Your task to perform on an android device: Go to location settings Image 0: 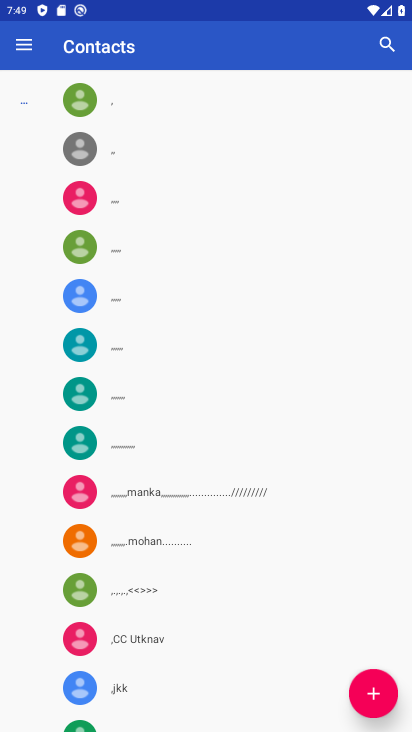
Step 0: drag from (227, 648) to (245, 491)
Your task to perform on an android device: Go to location settings Image 1: 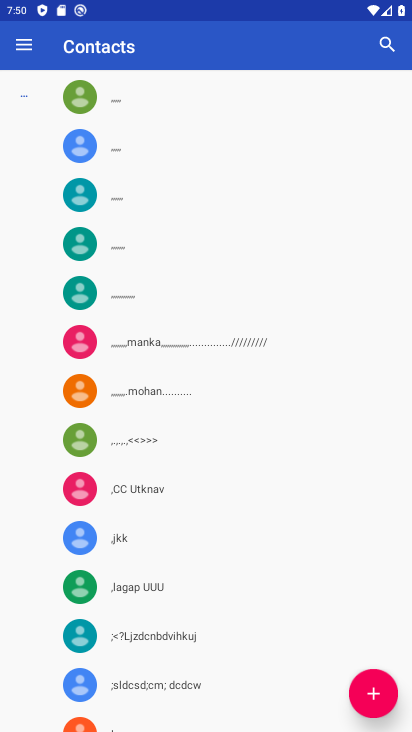
Step 1: press home button
Your task to perform on an android device: Go to location settings Image 2: 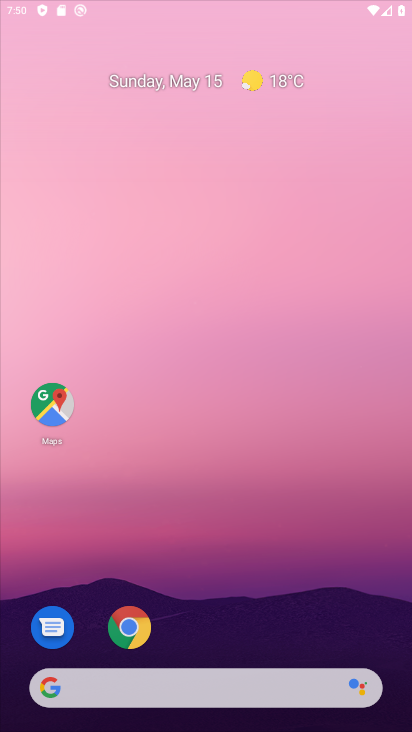
Step 2: drag from (127, 608) to (243, 10)
Your task to perform on an android device: Go to location settings Image 3: 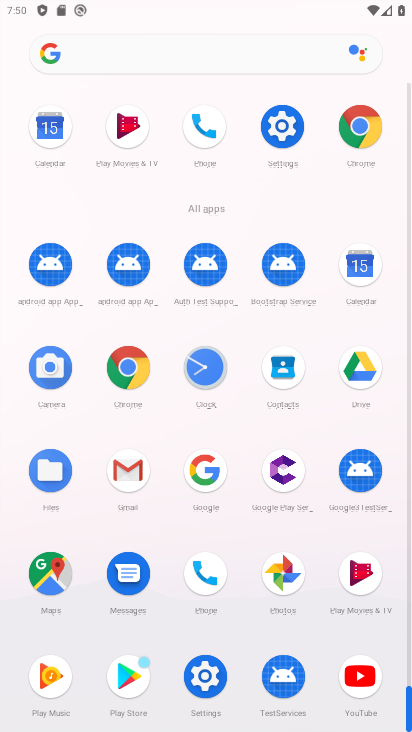
Step 3: click (282, 131)
Your task to perform on an android device: Go to location settings Image 4: 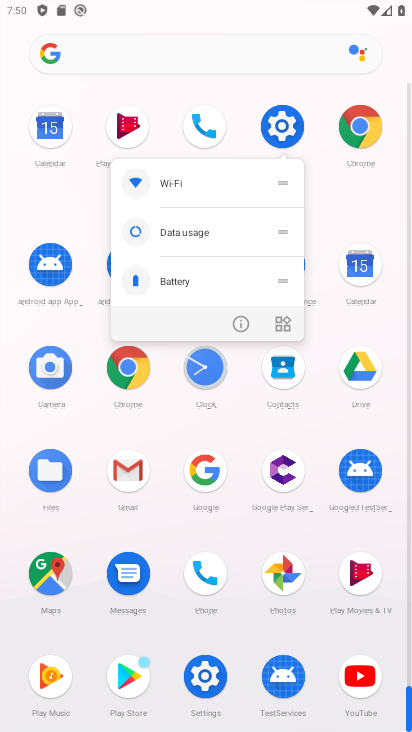
Step 4: click (240, 324)
Your task to perform on an android device: Go to location settings Image 5: 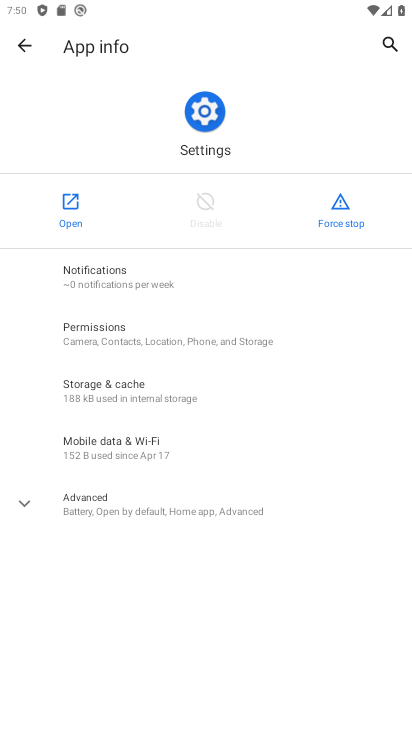
Step 5: click (63, 214)
Your task to perform on an android device: Go to location settings Image 6: 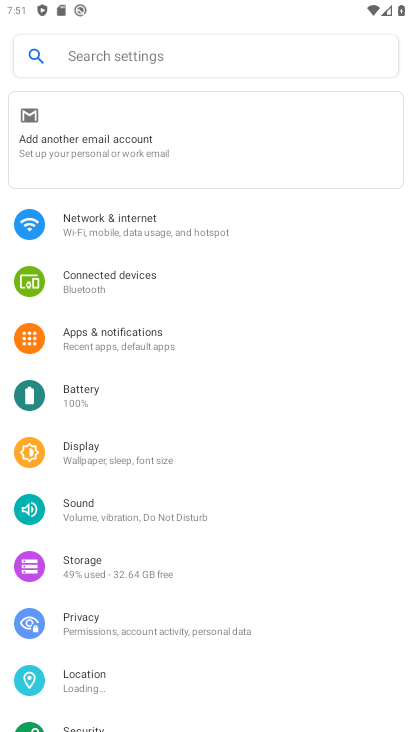
Step 6: click (120, 670)
Your task to perform on an android device: Go to location settings Image 7: 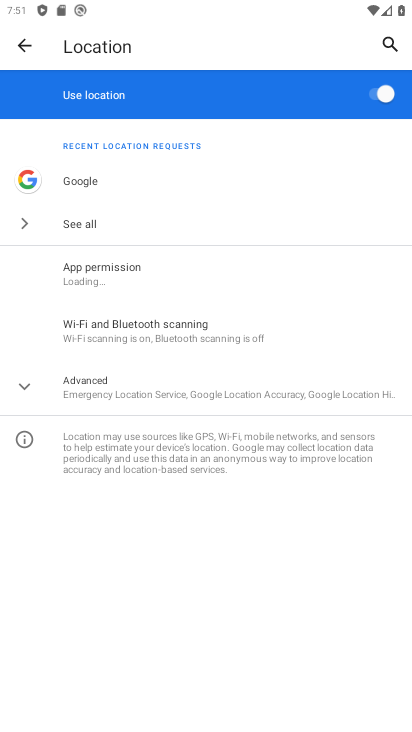
Step 7: click (120, 390)
Your task to perform on an android device: Go to location settings Image 8: 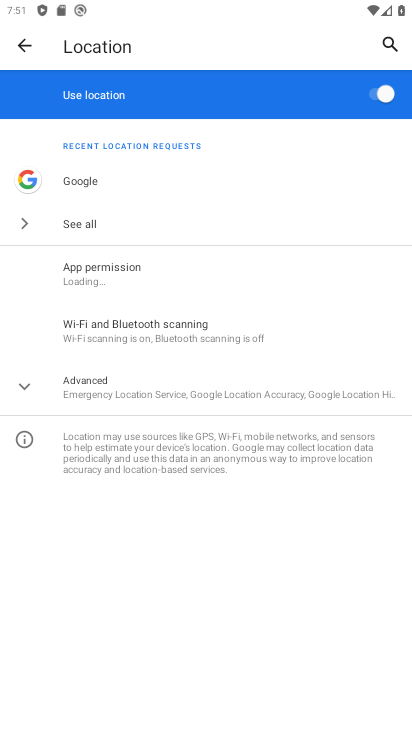
Step 8: click (120, 390)
Your task to perform on an android device: Go to location settings Image 9: 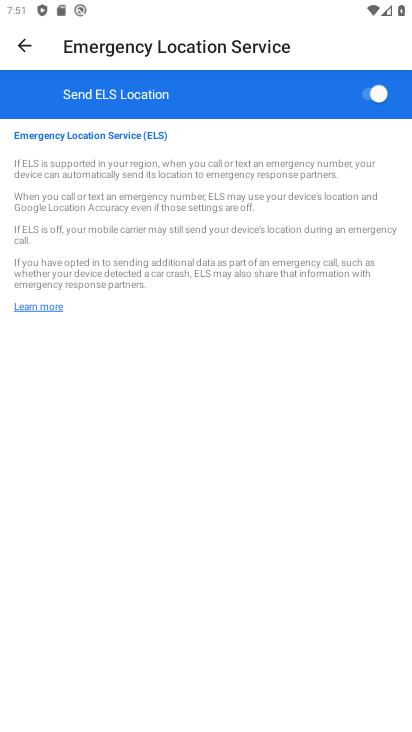
Step 9: click (22, 52)
Your task to perform on an android device: Go to location settings Image 10: 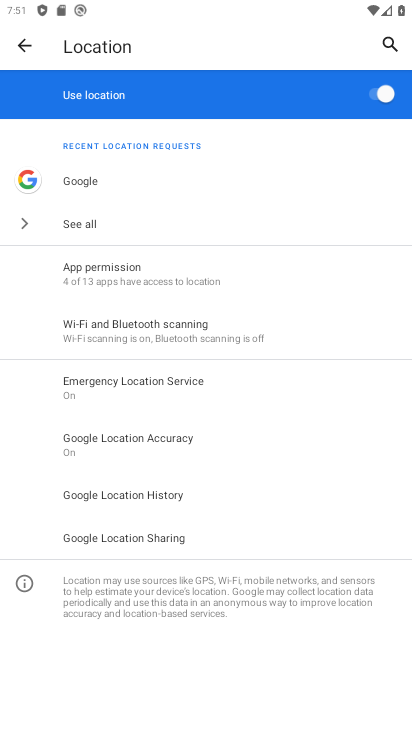
Step 10: task complete